Your task to perform on an android device: check the backup settings in the google photos Image 0: 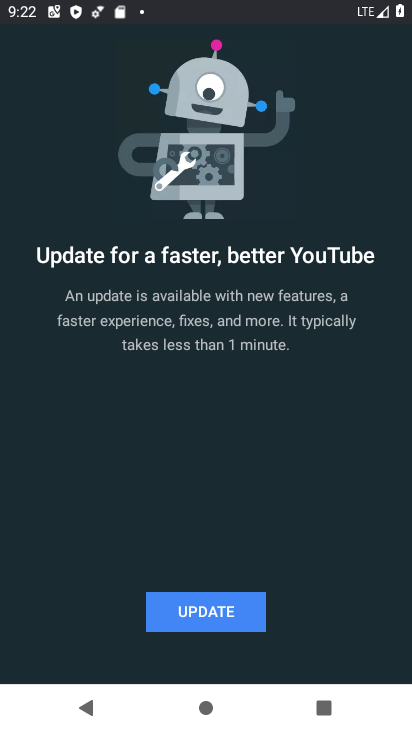
Step 0: press home button
Your task to perform on an android device: check the backup settings in the google photos Image 1: 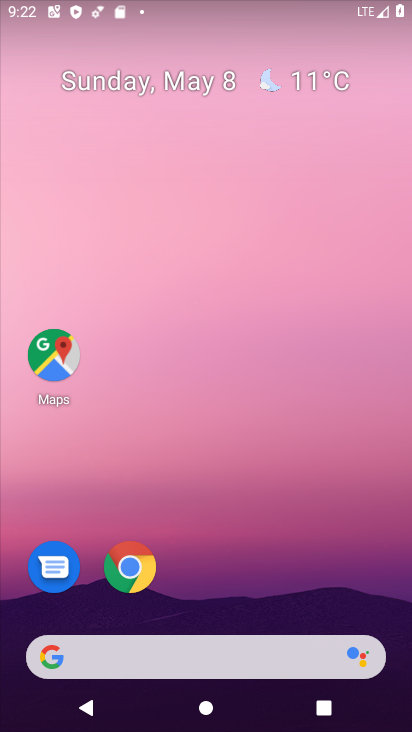
Step 1: drag from (269, 510) to (317, 56)
Your task to perform on an android device: check the backup settings in the google photos Image 2: 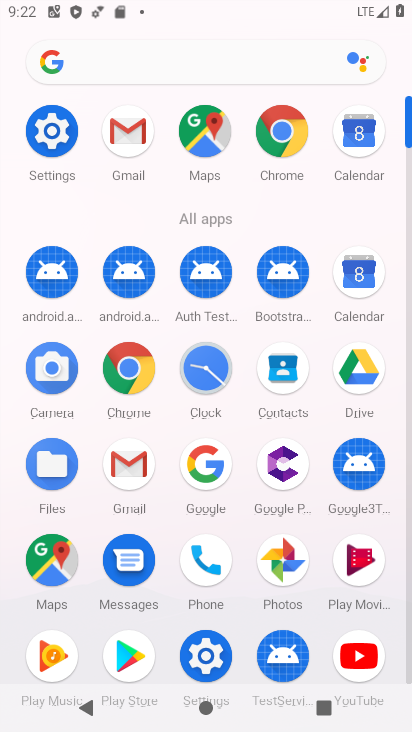
Step 2: click (289, 564)
Your task to perform on an android device: check the backup settings in the google photos Image 3: 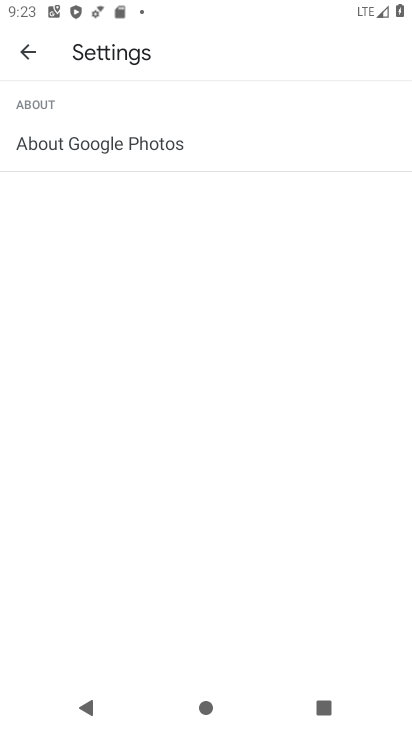
Step 3: press back button
Your task to perform on an android device: check the backup settings in the google photos Image 4: 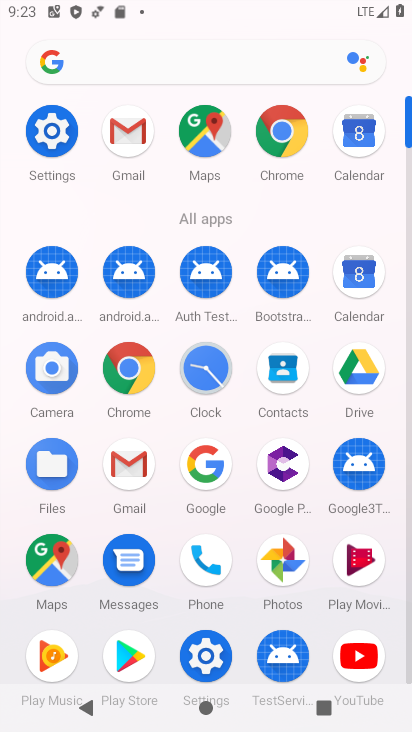
Step 4: click (293, 565)
Your task to perform on an android device: check the backup settings in the google photos Image 5: 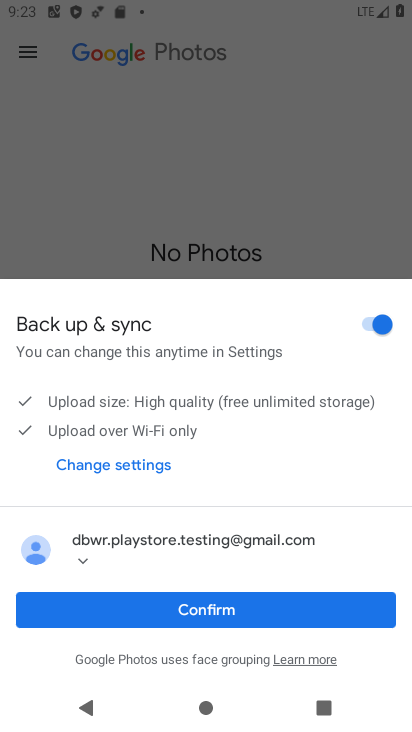
Step 5: click (224, 618)
Your task to perform on an android device: check the backup settings in the google photos Image 6: 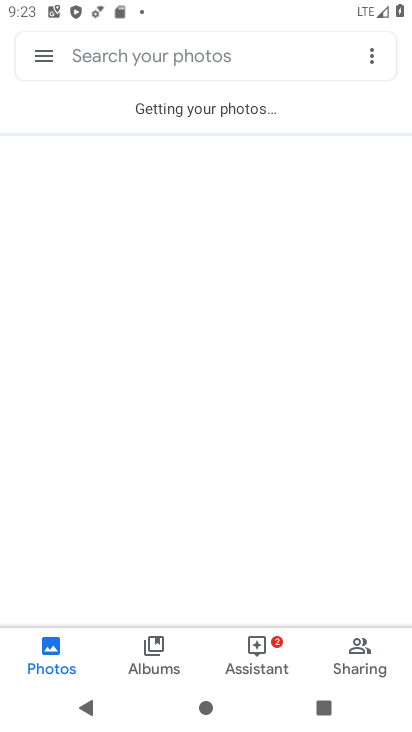
Step 6: click (43, 59)
Your task to perform on an android device: check the backup settings in the google photos Image 7: 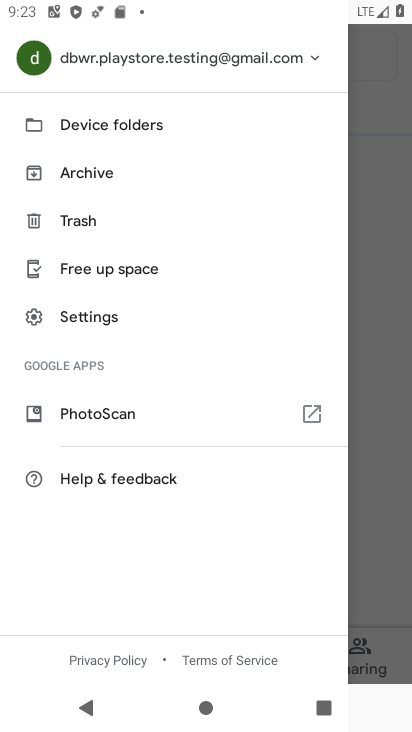
Step 7: click (90, 316)
Your task to perform on an android device: check the backup settings in the google photos Image 8: 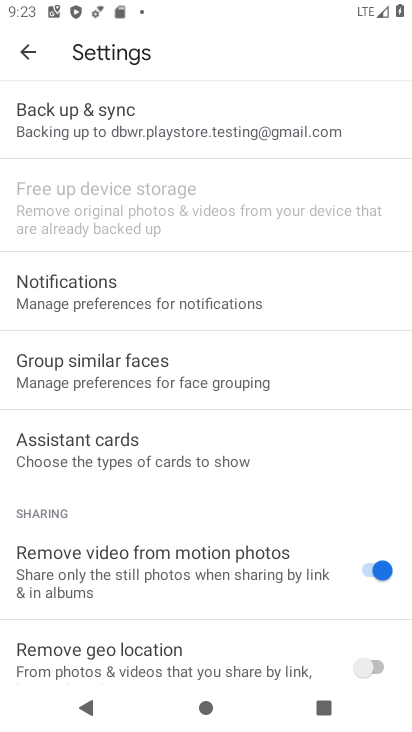
Step 8: click (127, 131)
Your task to perform on an android device: check the backup settings in the google photos Image 9: 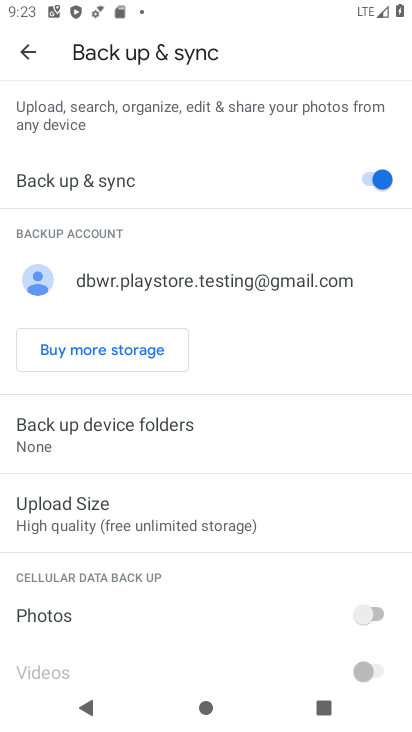
Step 9: task complete